Your task to perform on an android device: Open privacy settings Image 0: 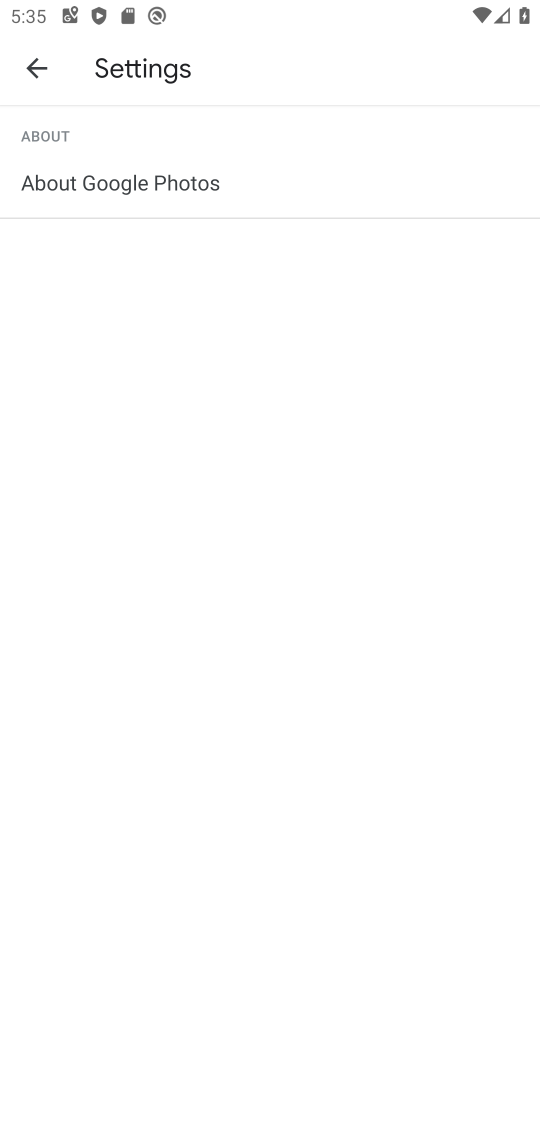
Step 0: press home button
Your task to perform on an android device: Open privacy settings Image 1: 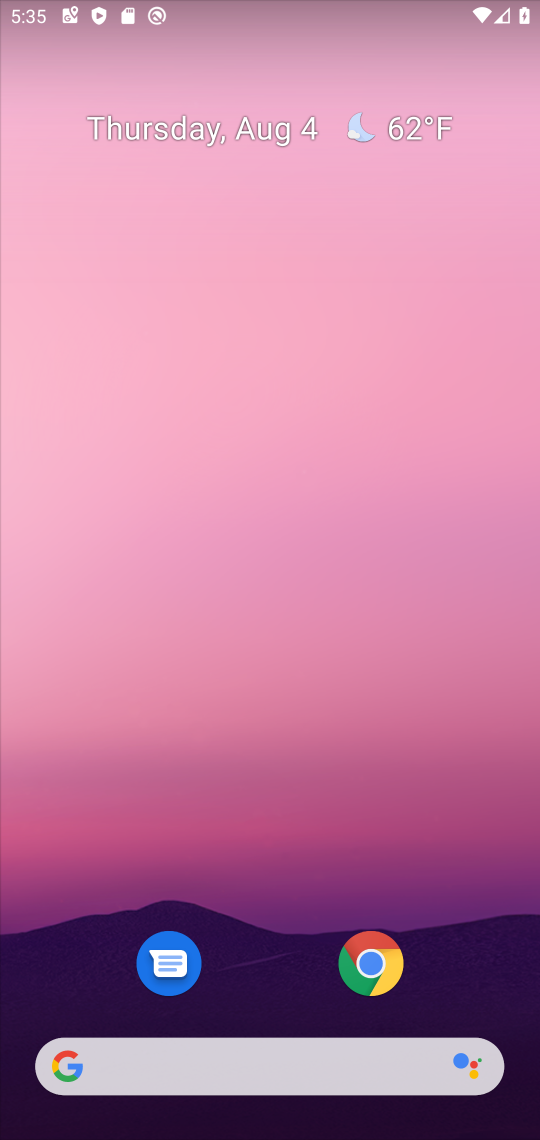
Step 1: drag from (303, 855) to (307, 114)
Your task to perform on an android device: Open privacy settings Image 2: 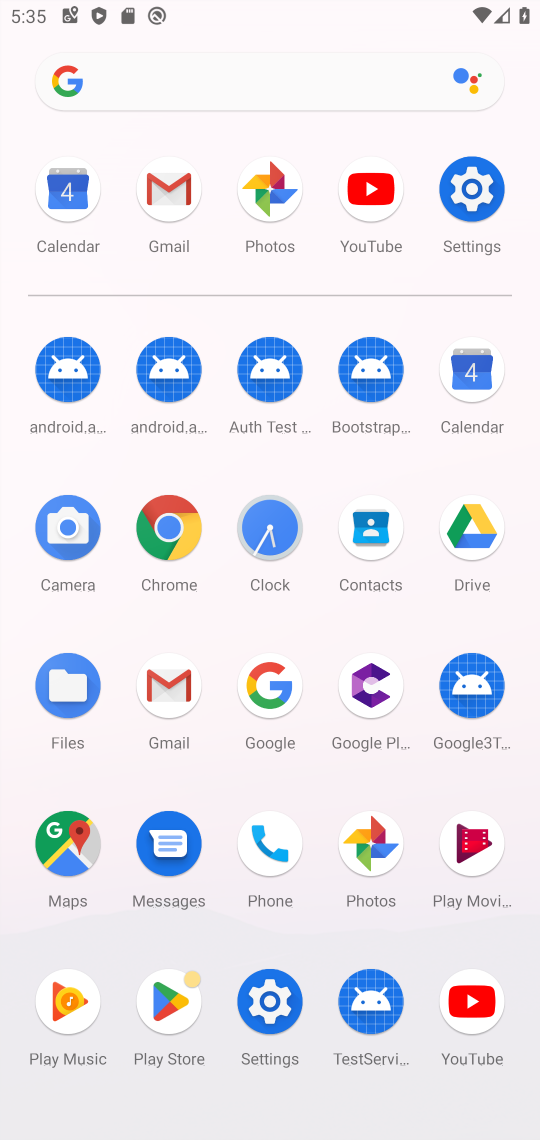
Step 2: click (470, 187)
Your task to perform on an android device: Open privacy settings Image 3: 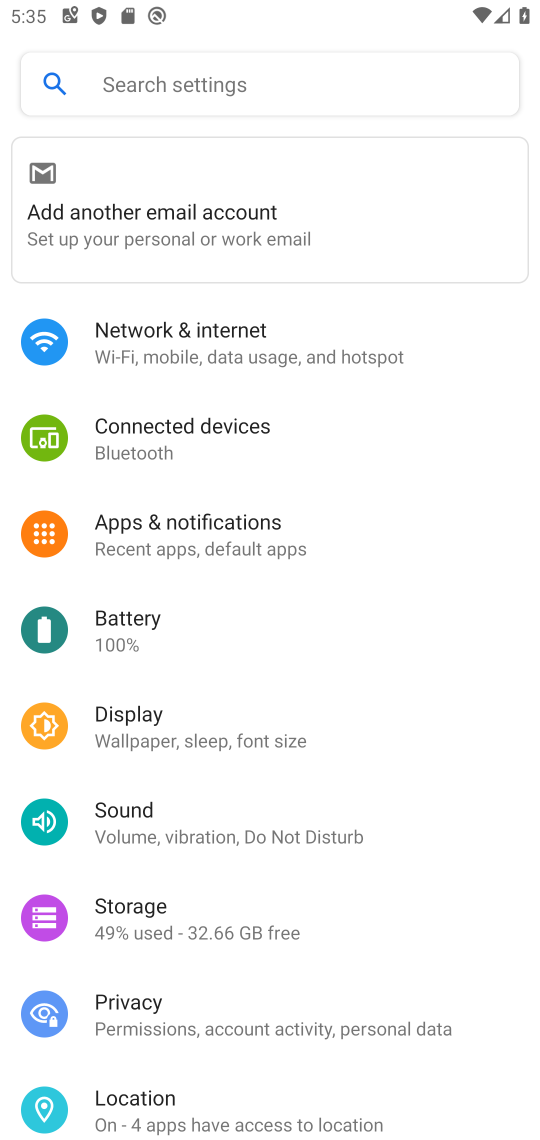
Step 3: click (137, 1012)
Your task to perform on an android device: Open privacy settings Image 4: 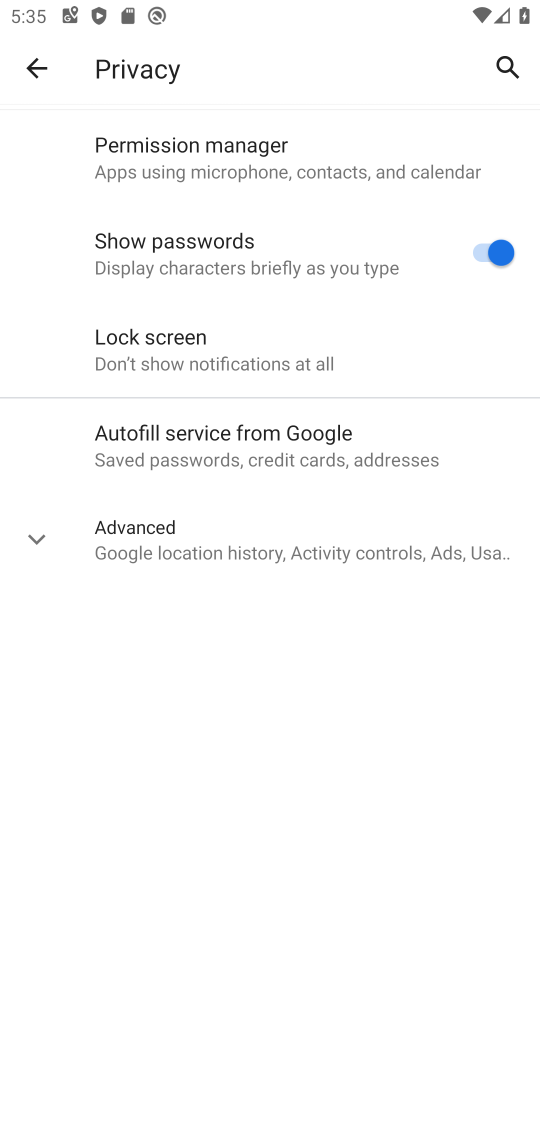
Step 4: task complete